Your task to perform on an android device: turn on the 12-hour format for clock Image 0: 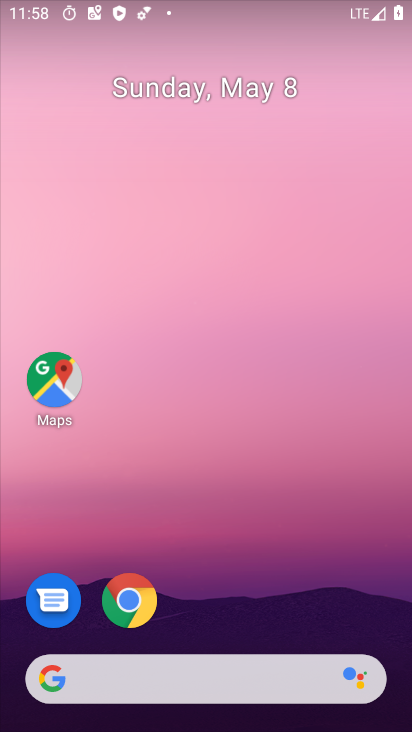
Step 0: drag from (279, 575) to (203, 173)
Your task to perform on an android device: turn on the 12-hour format for clock Image 1: 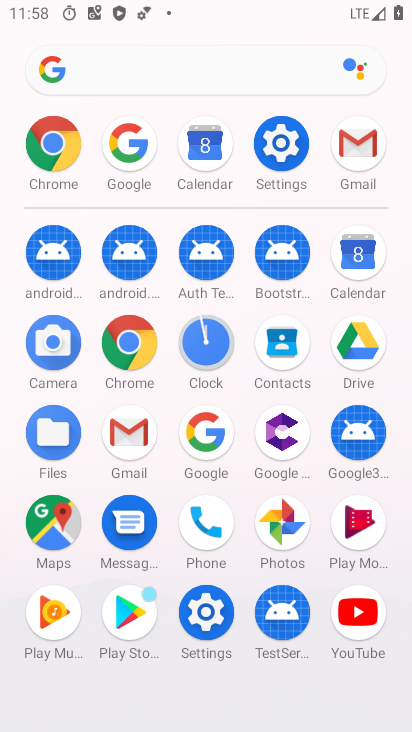
Step 1: click (218, 351)
Your task to perform on an android device: turn on the 12-hour format for clock Image 2: 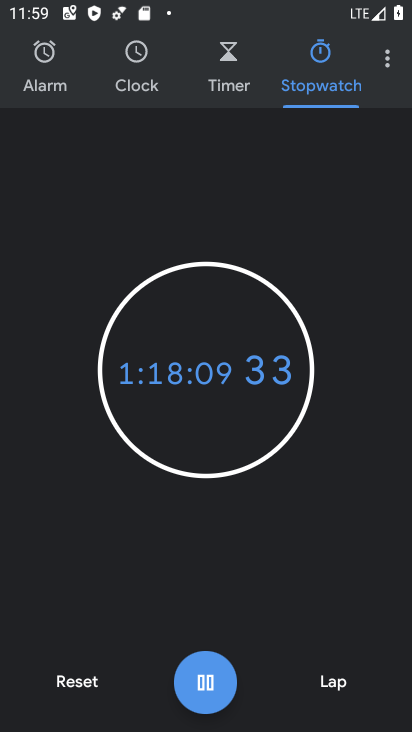
Step 2: click (392, 72)
Your task to perform on an android device: turn on the 12-hour format for clock Image 3: 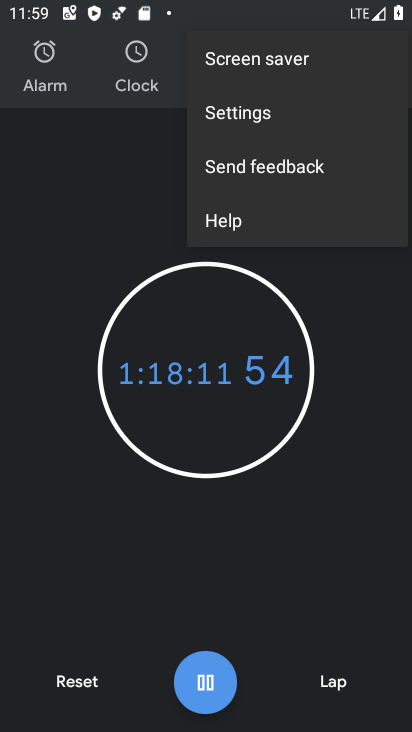
Step 3: click (302, 107)
Your task to perform on an android device: turn on the 12-hour format for clock Image 4: 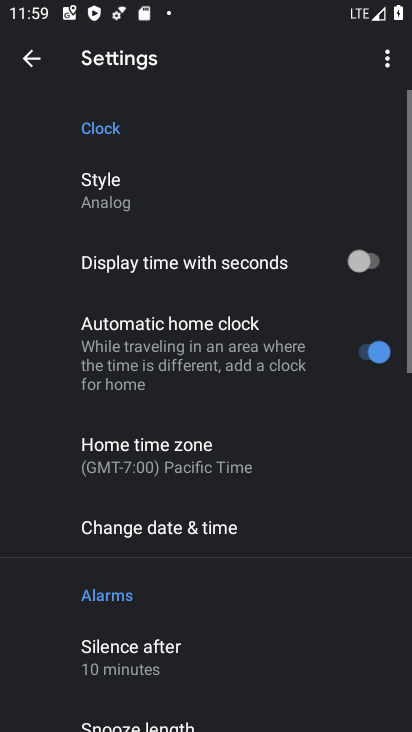
Step 4: drag from (191, 555) to (196, 463)
Your task to perform on an android device: turn on the 12-hour format for clock Image 5: 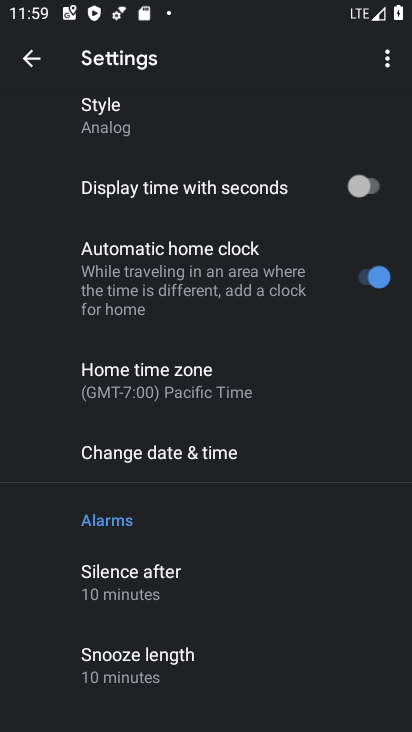
Step 5: click (197, 449)
Your task to perform on an android device: turn on the 12-hour format for clock Image 6: 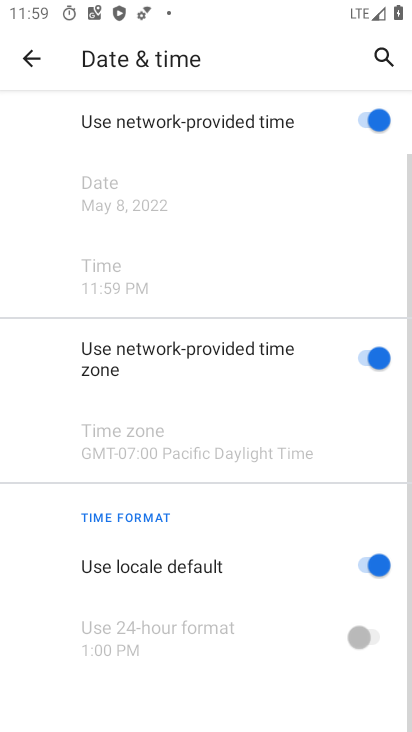
Step 6: task complete